Your task to perform on an android device: change the clock display to analog Image 0: 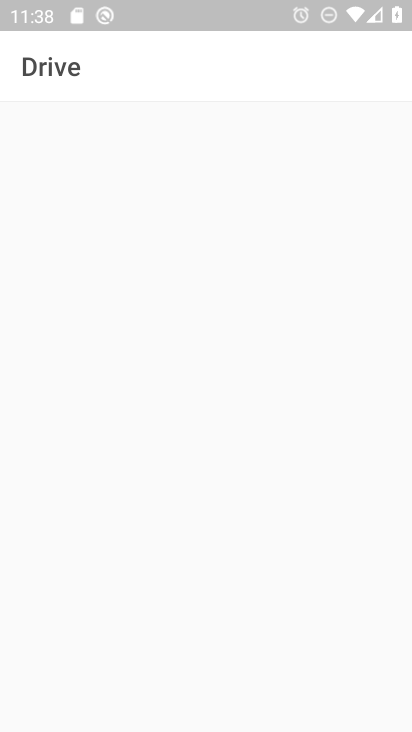
Step 0: press home button
Your task to perform on an android device: change the clock display to analog Image 1: 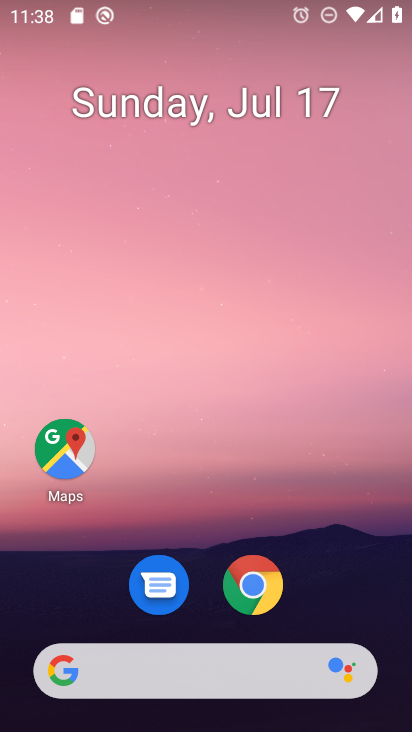
Step 1: drag from (343, 538) to (292, 8)
Your task to perform on an android device: change the clock display to analog Image 2: 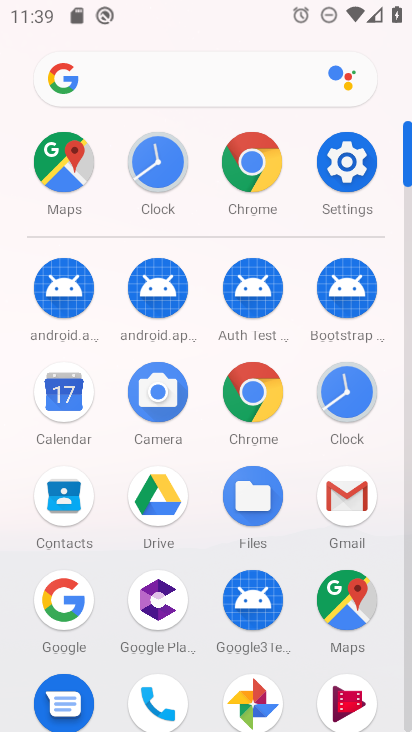
Step 2: click (353, 384)
Your task to perform on an android device: change the clock display to analog Image 3: 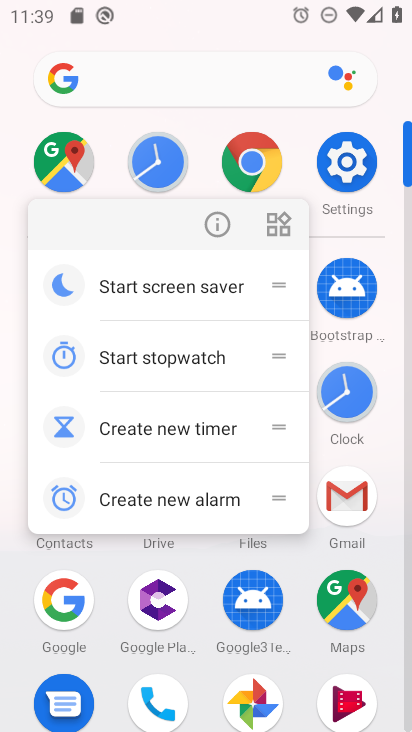
Step 3: click (353, 384)
Your task to perform on an android device: change the clock display to analog Image 4: 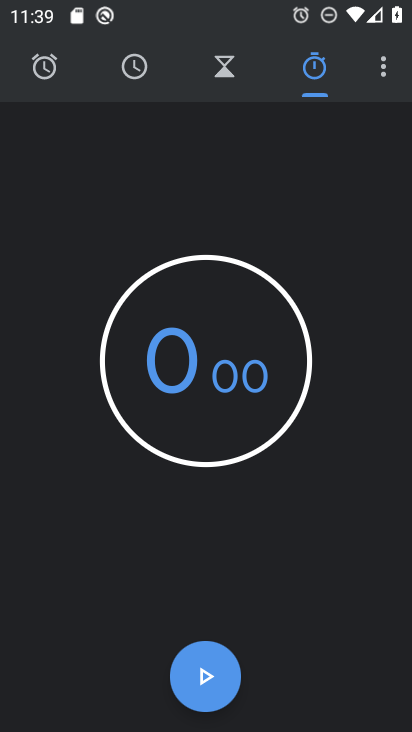
Step 4: click (145, 75)
Your task to perform on an android device: change the clock display to analog Image 5: 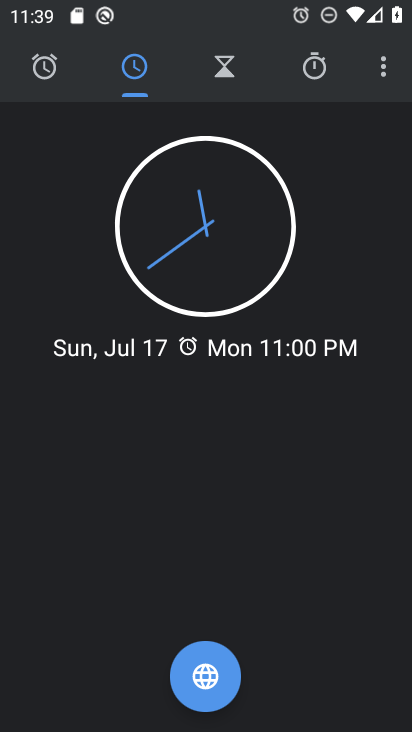
Step 5: task complete